Your task to perform on an android device: Search for Italian restaurants on Maps Image 0: 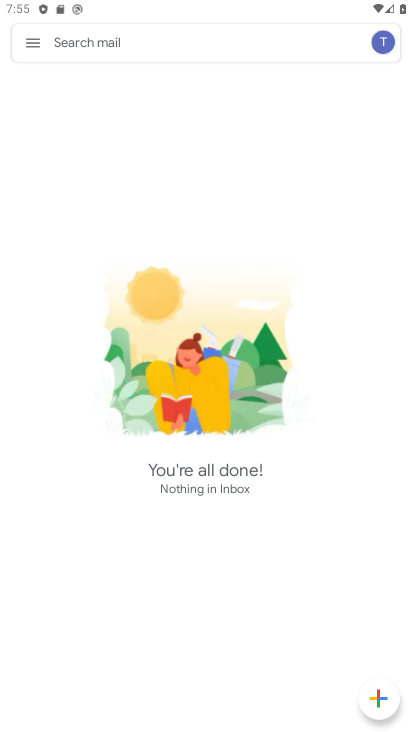
Step 0: press home button
Your task to perform on an android device: Search for Italian restaurants on Maps Image 1: 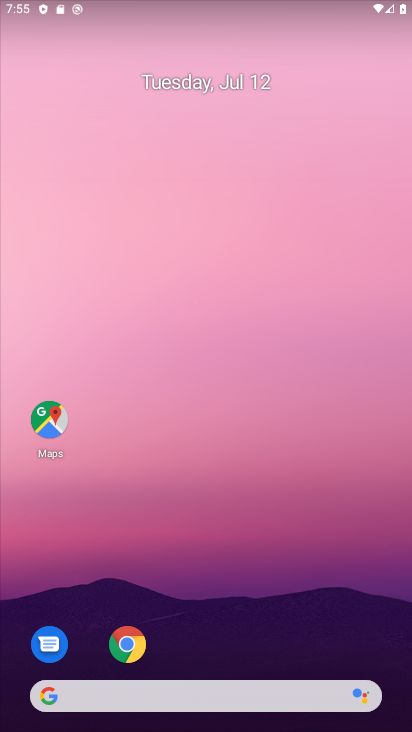
Step 1: click (46, 412)
Your task to perform on an android device: Search for Italian restaurants on Maps Image 2: 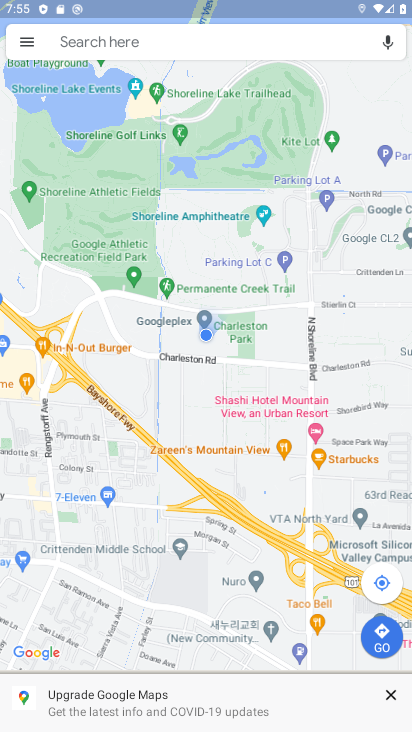
Step 2: click (90, 40)
Your task to perform on an android device: Search for Italian restaurants on Maps Image 3: 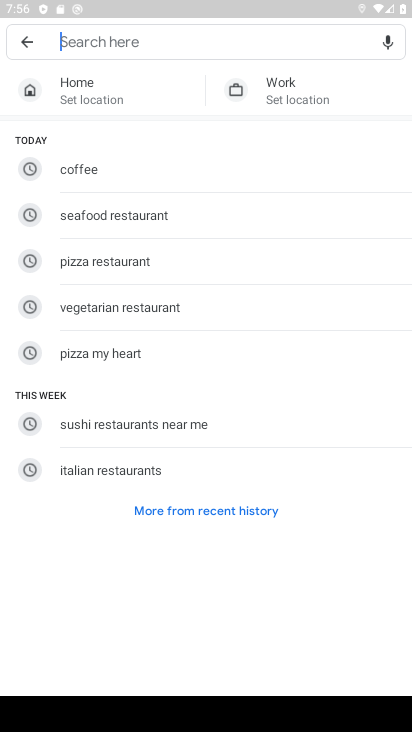
Step 3: click (122, 467)
Your task to perform on an android device: Search for Italian restaurants on Maps Image 4: 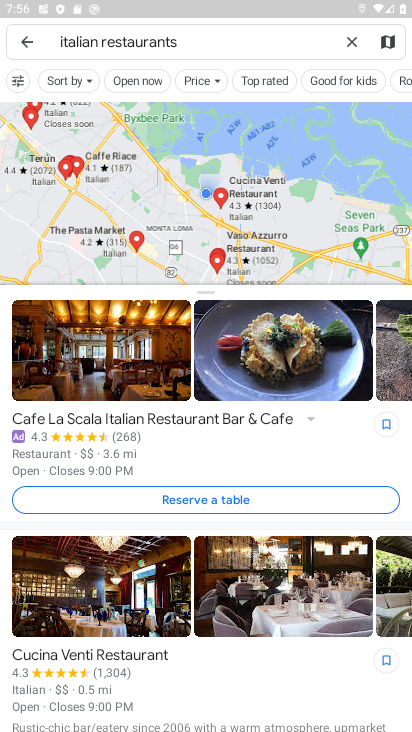
Step 4: task complete